Your task to perform on an android device: Go to eBay Image 0: 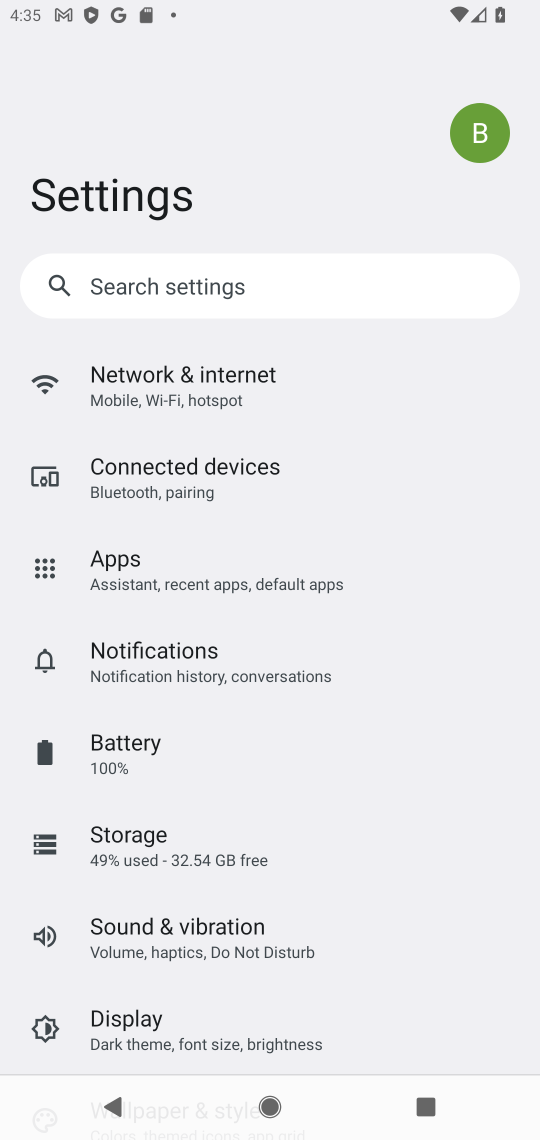
Step 0: press home button
Your task to perform on an android device: Go to eBay Image 1: 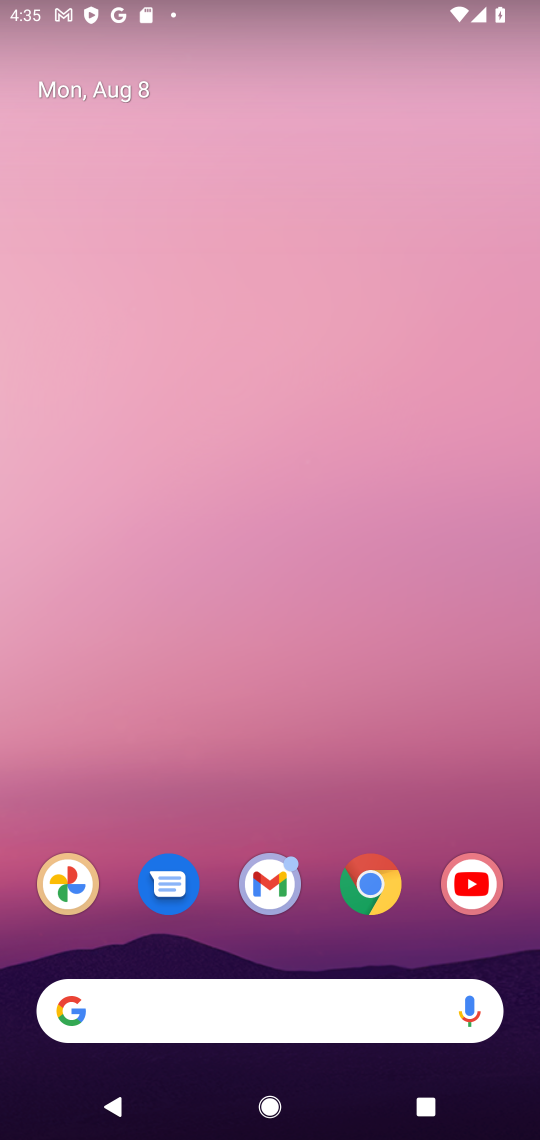
Step 1: click (362, 873)
Your task to perform on an android device: Go to eBay Image 2: 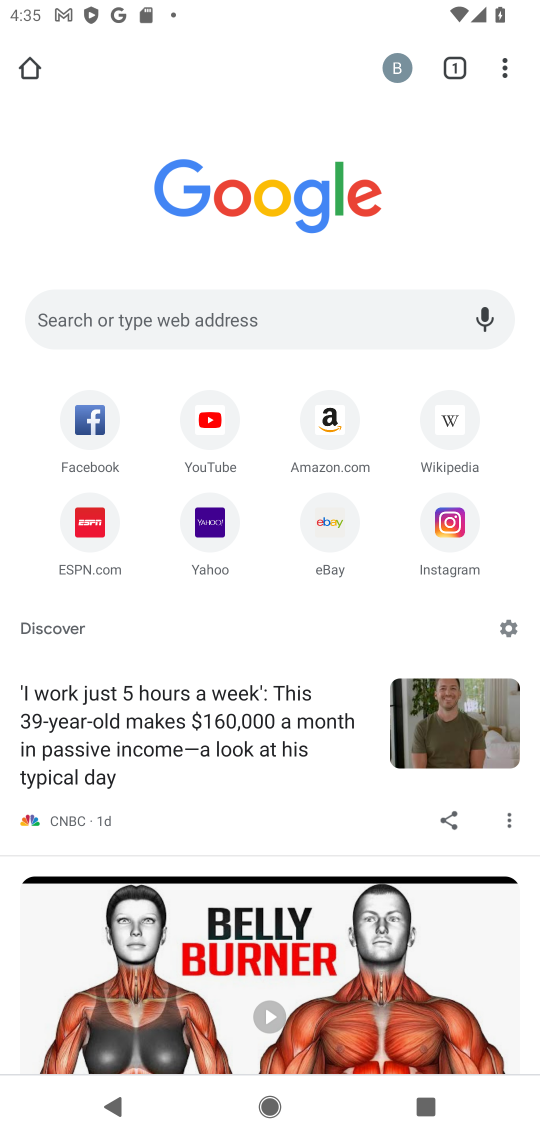
Step 2: click (339, 531)
Your task to perform on an android device: Go to eBay Image 3: 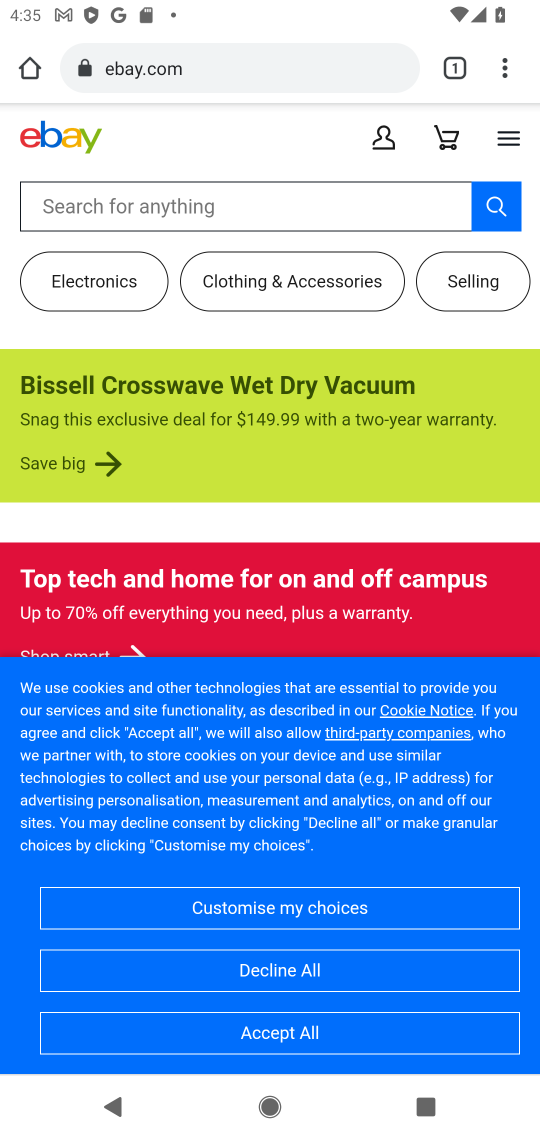
Step 3: task complete